Your task to perform on an android device: toggle javascript in the chrome app Image 0: 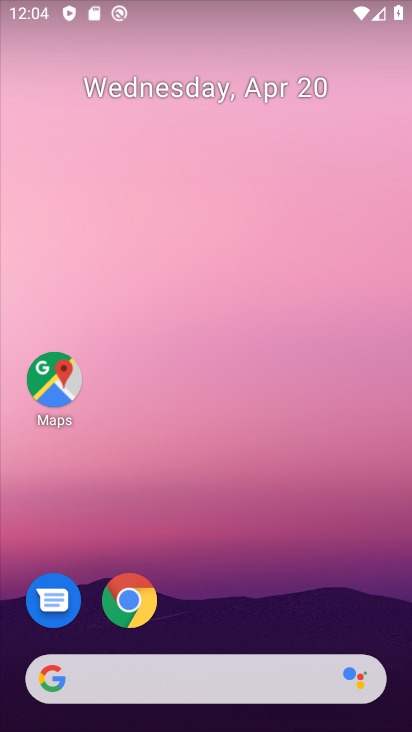
Step 0: click (110, 586)
Your task to perform on an android device: toggle javascript in the chrome app Image 1: 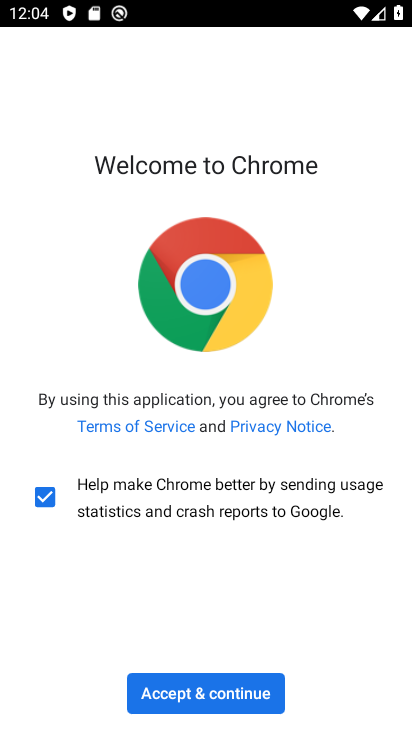
Step 1: click (229, 694)
Your task to perform on an android device: toggle javascript in the chrome app Image 2: 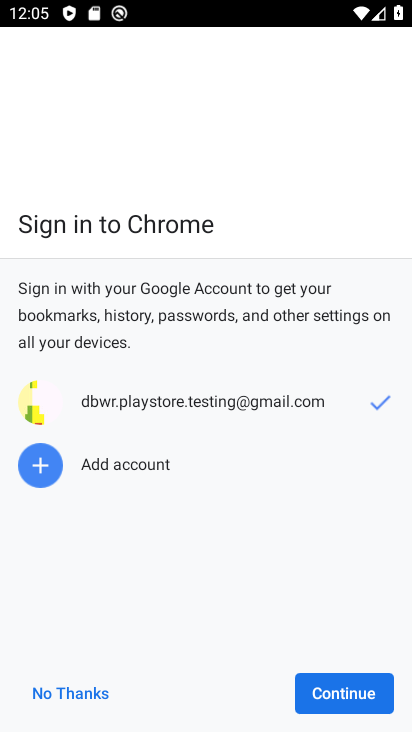
Step 2: click (353, 706)
Your task to perform on an android device: toggle javascript in the chrome app Image 3: 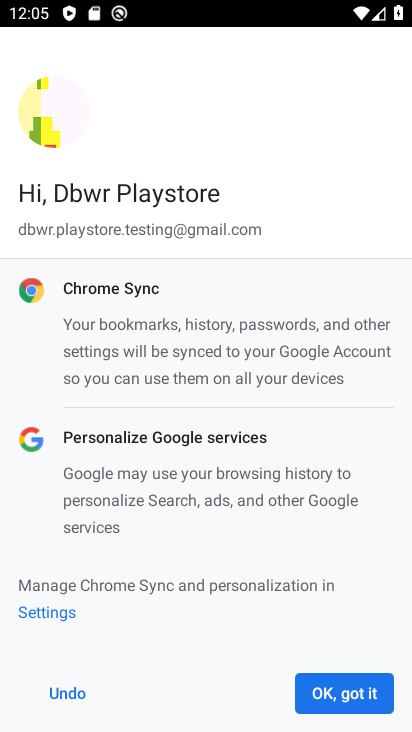
Step 3: click (350, 698)
Your task to perform on an android device: toggle javascript in the chrome app Image 4: 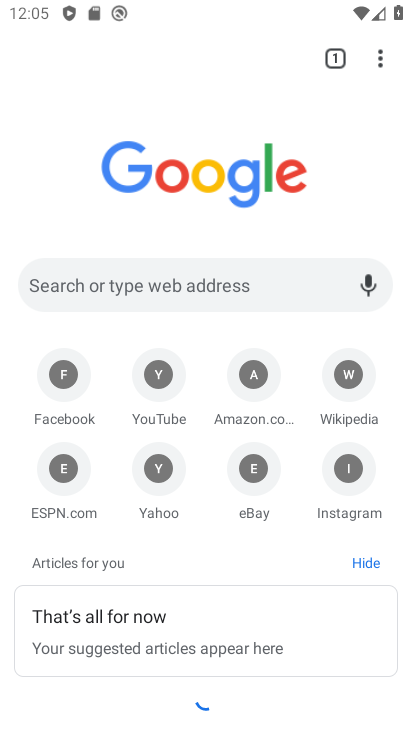
Step 4: drag from (383, 59) to (202, 504)
Your task to perform on an android device: toggle javascript in the chrome app Image 5: 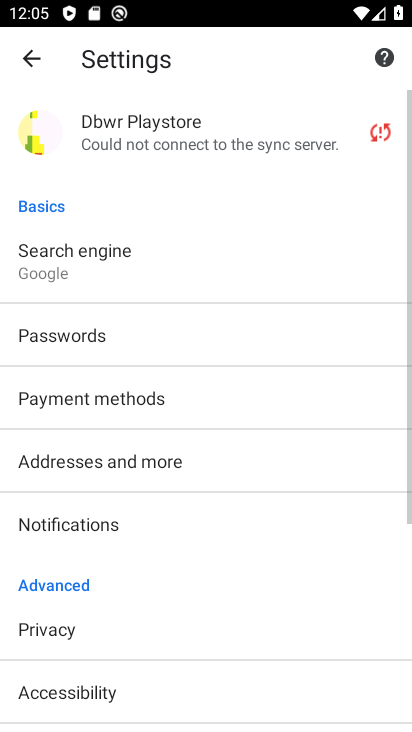
Step 5: drag from (202, 631) to (266, 242)
Your task to perform on an android device: toggle javascript in the chrome app Image 6: 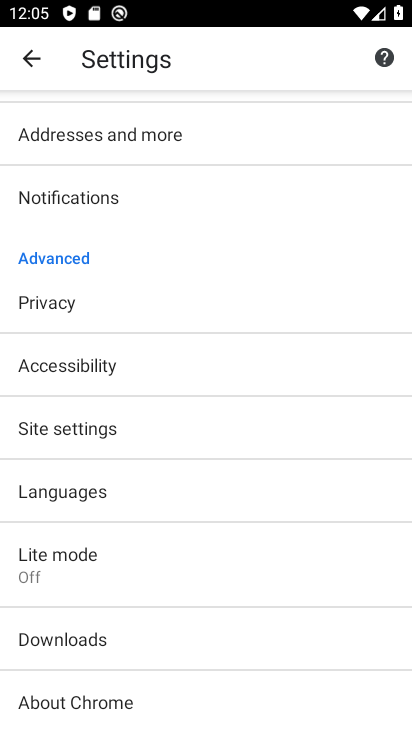
Step 6: click (134, 428)
Your task to perform on an android device: toggle javascript in the chrome app Image 7: 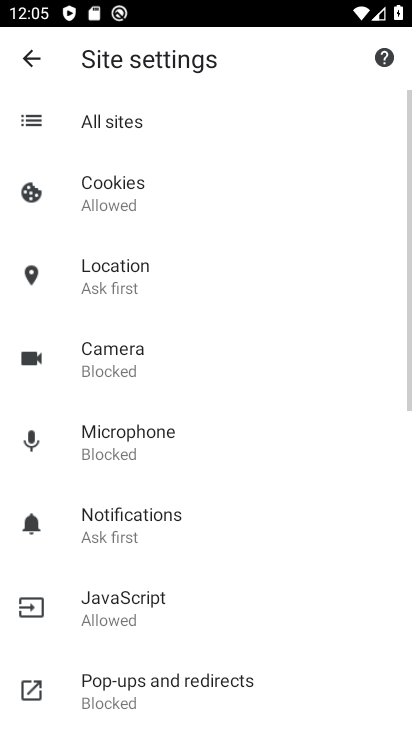
Step 7: click (147, 601)
Your task to perform on an android device: toggle javascript in the chrome app Image 8: 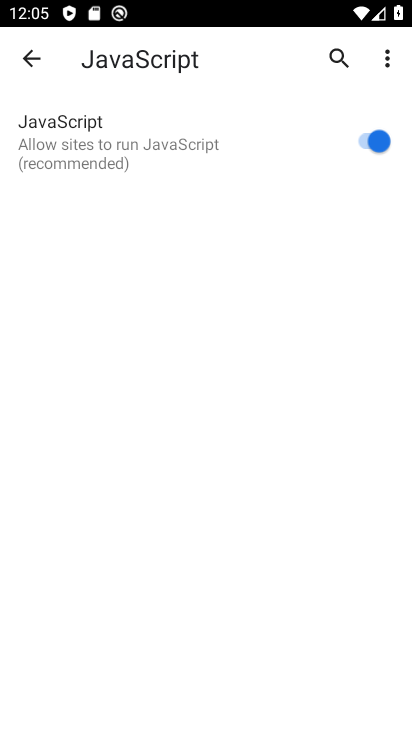
Step 8: click (368, 135)
Your task to perform on an android device: toggle javascript in the chrome app Image 9: 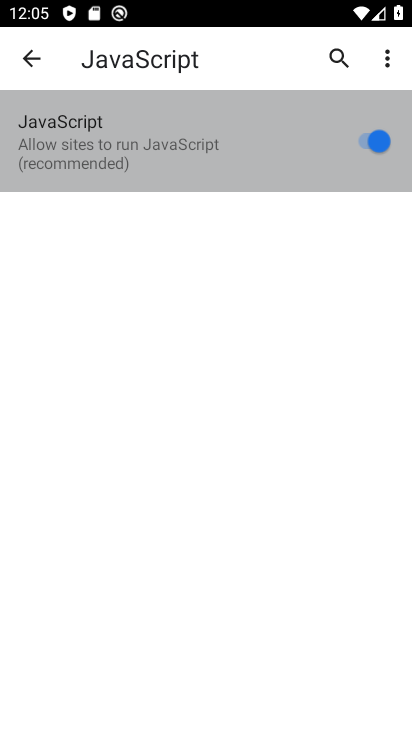
Step 9: task complete